Your task to perform on an android device: turn off improve location accuracy Image 0: 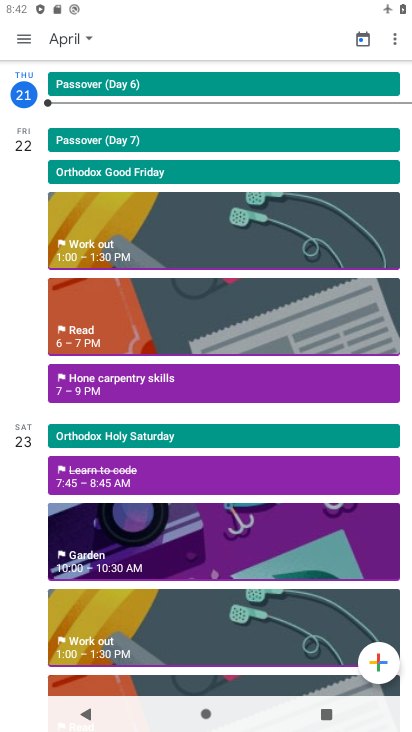
Step 0: press home button
Your task to perform on an android device: turn off improve location accuracy Image 1: 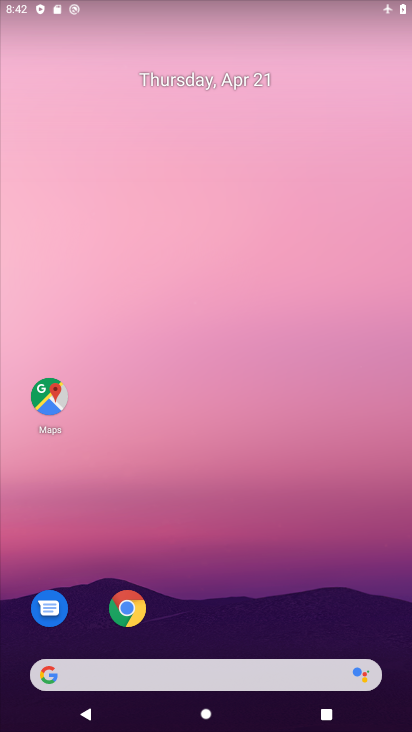
Step 1: drag from (250, 466) to (282, 63)
Your task to perform on an android device: turn off improve location accuracy Image 2: 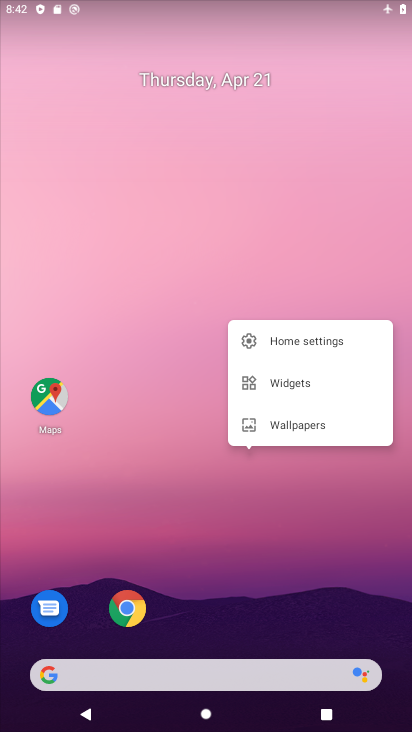
Step 2: click (221, 600)
Your task to perform on an android device: turn off improve location accuracy Image 3: 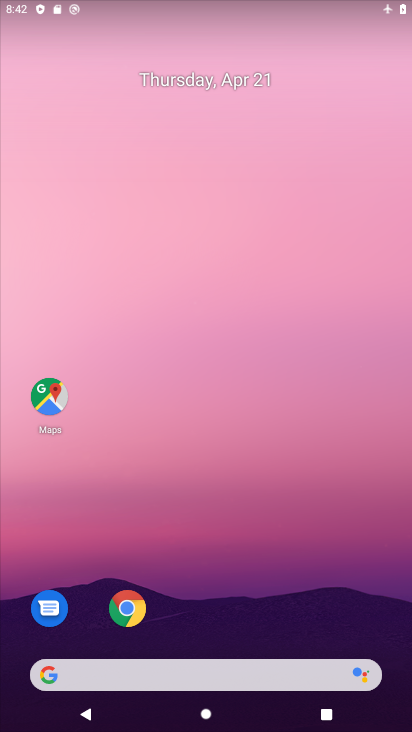
Step 3: drag from (221, 600) to (251, 8)
Your task to perform on an android device: turn off improve location accuracy Image 4: 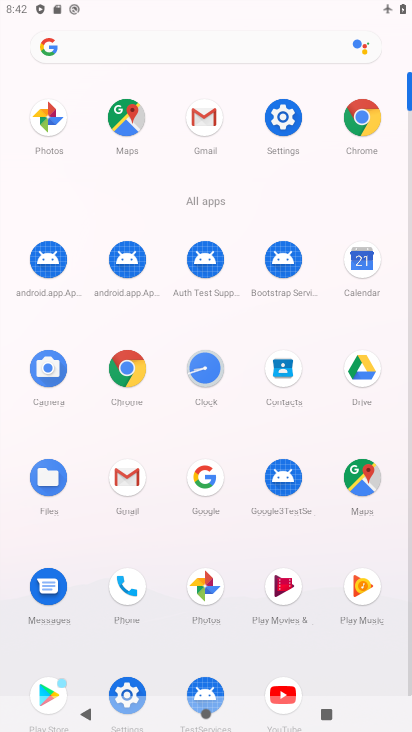
Step 4: click (287, 114)
Your task to perform on an android device: turn off improve location accuracy Image 5: 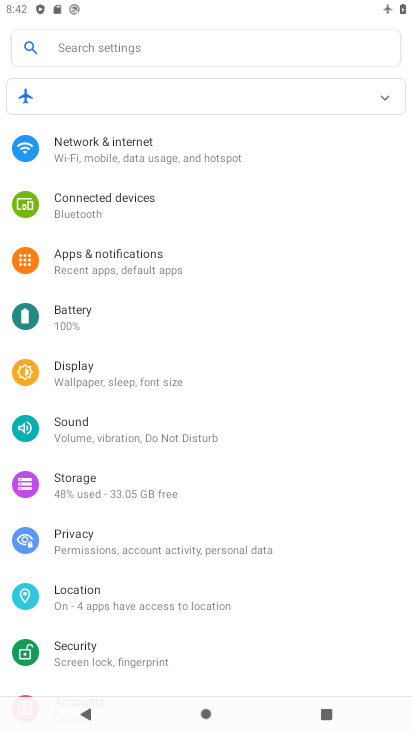
Step 5: click (82, 588)
Your task to perform on an android device: turn off improve location accuracy Image 6: 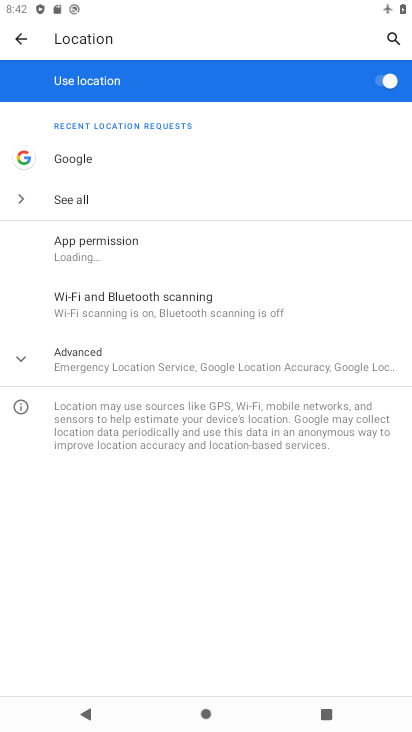
Step 6: click (64, 351)
Your task to perform on an android device: turn off improve location accuracy Image 7: 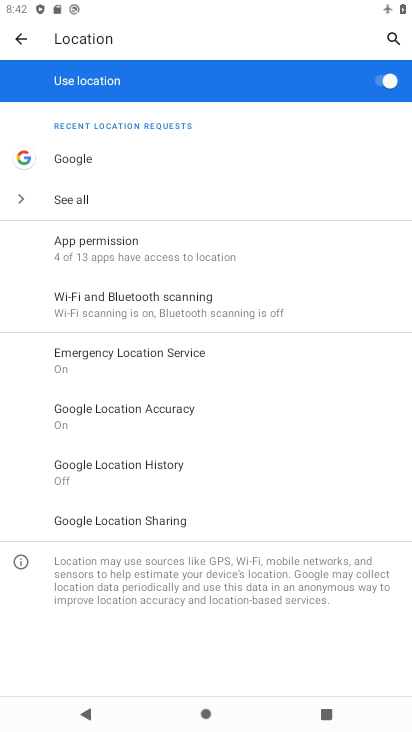
Step 7: click (118, 409)
Your task to perform on an android device: turn off improve location accuracy Image 8: 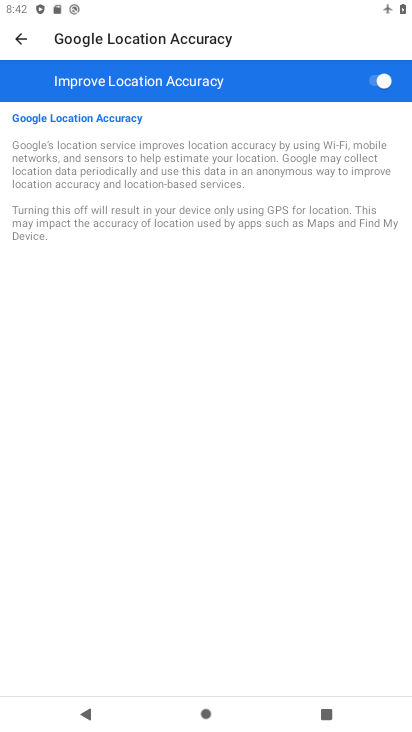
Step 8: click (386, 81)
Your task to perform on an android device: turn off improve location accuracy Image 9: 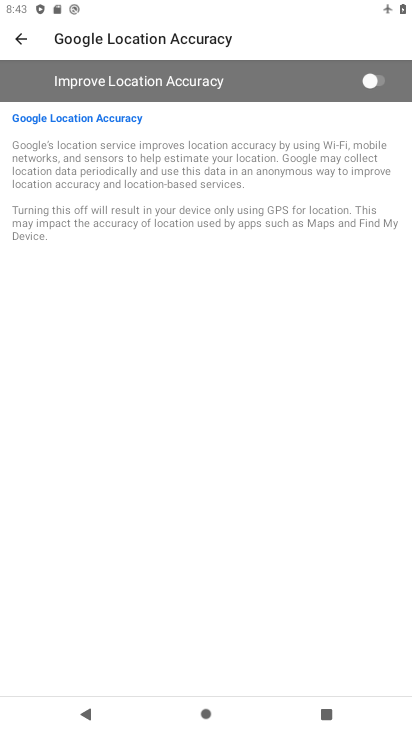
Step 9: task complete